Your task to perform on an android device: Open Youtube and go to "Your channel" Image 0: 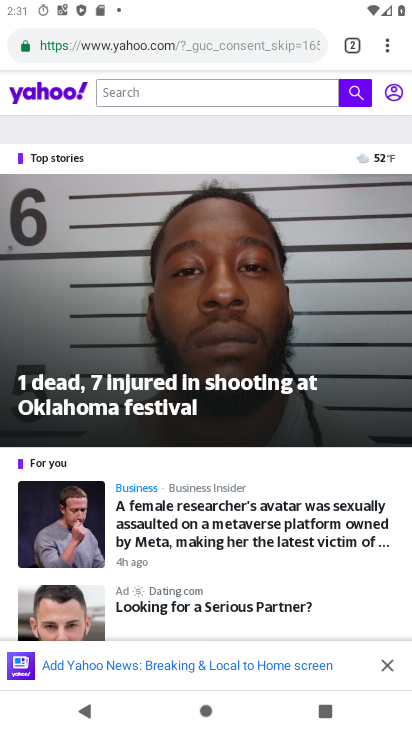
Step 0: press home button
Your task to perform on an android device: Open Youtube and go to "Your channel" Image 1: 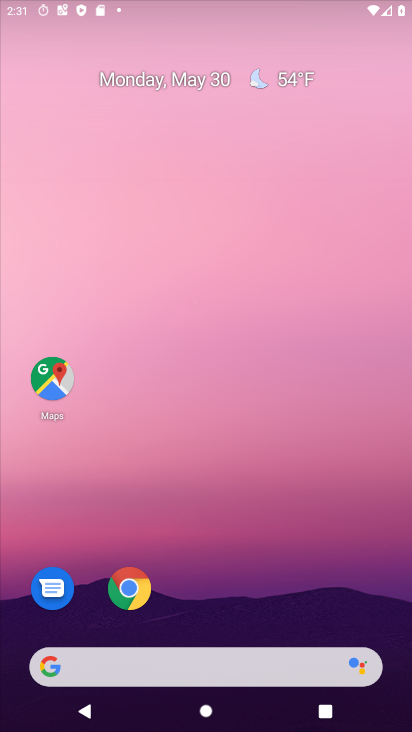
Step 1: drag from (237, 588) to (242, 8)
Your task to perform on an android device: Open Youtube and go to "Your channel" Image 2: 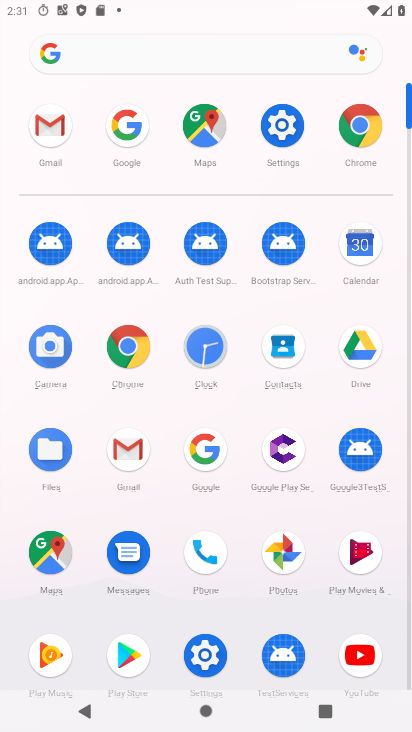
Step 2: click (361, 646)
Your task to perform on an android device: Open Youtube and go to "Your channel" Image 3: 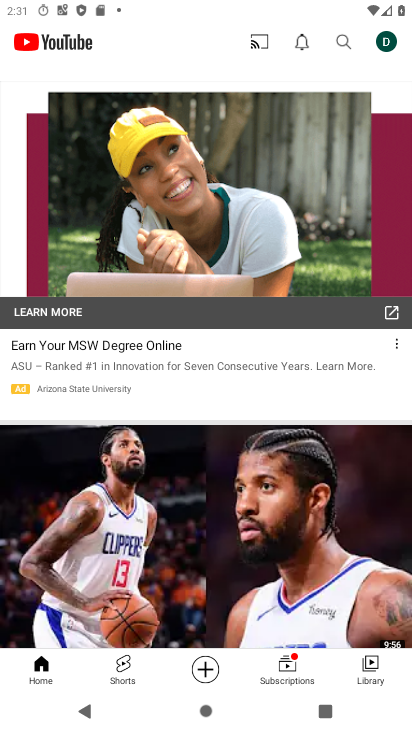
Step 3: click (385, 44)
Your task to perform on an android device: Open Youtube and go to "Your channel" Image 4: 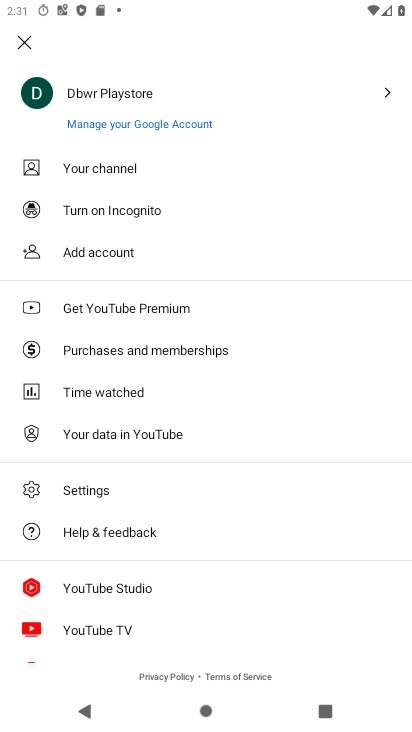
Step 4: click (111, 174)
Your task to perform on an android device: Open Youtube and go to "Your channel" Image 5: 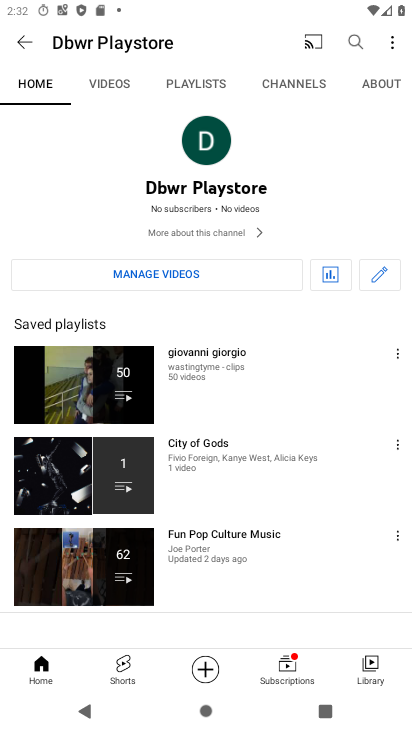
Step 5: task complete